Your task to perform on an android device: open chrome and create a bookmark for the current page Image 0: 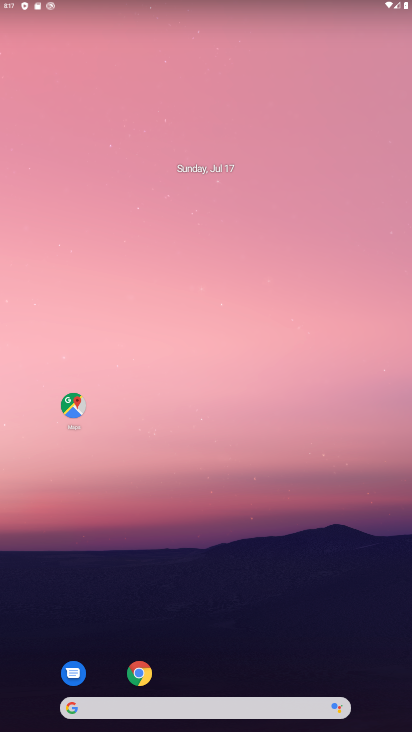
Step 0: click (140, 671)
Your task to perform on an android device: open chrome and create a bookmark for the current page Image 1: 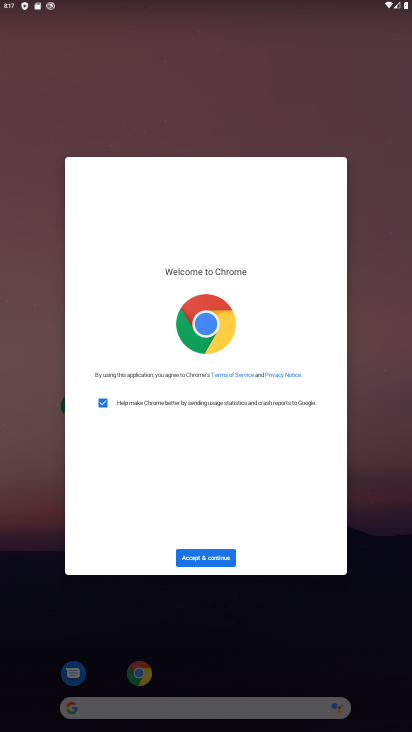
Step 1: click (177, 561)
Your task to perform on an android device: open chrome and create a bookmark for the current page Image 2: 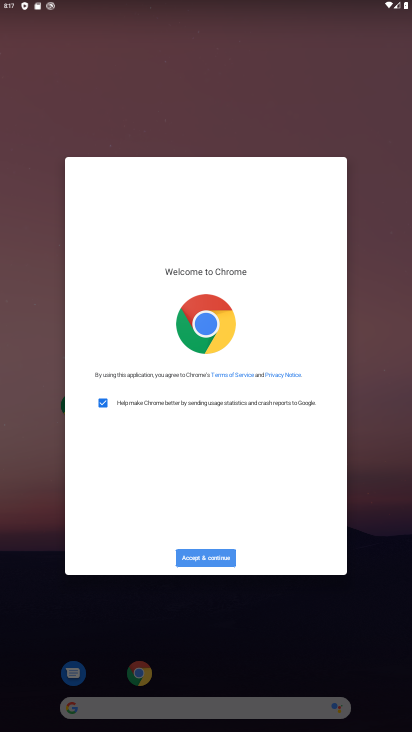
Step 2: click (189, 565)
Your task to perform on an android device: open chrome and create a bookmark for the current page Image 3: 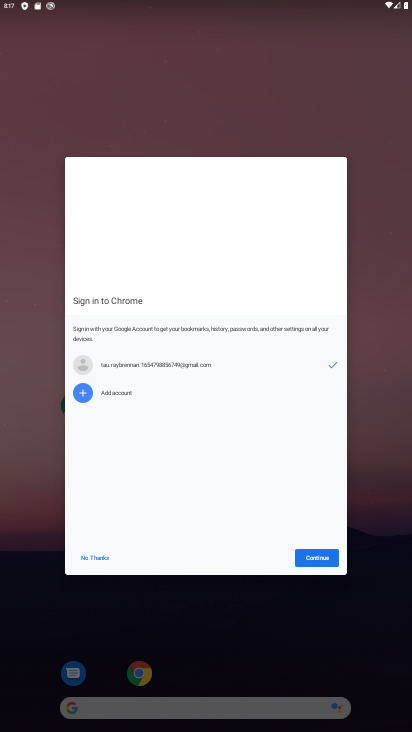
Step 3: click (322, 548)
Your task to perform on an android device: open chrome and create a bookmark for the current page Image 4: 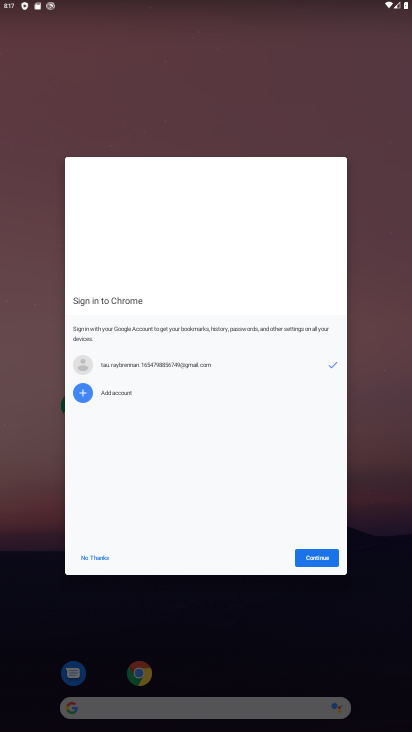
Step 4: click (319, 563)
Your task to perform on an android device: open chrome and create a bookmark for the current page Image 5: 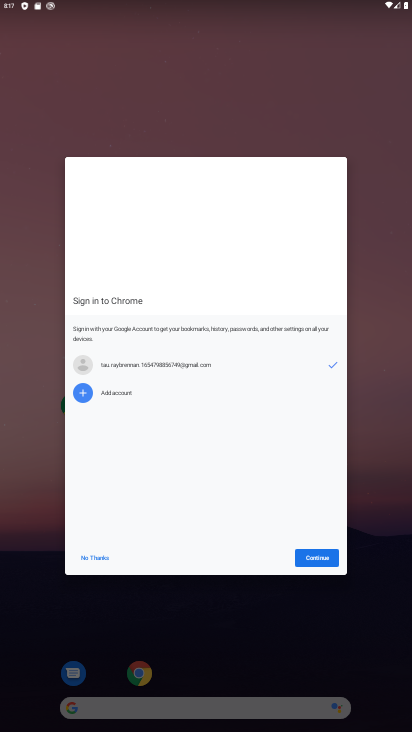
Step 5: click (319, 558)
Your task to perform on an android device: open chrome and create a bookmark for the current page Image 6: 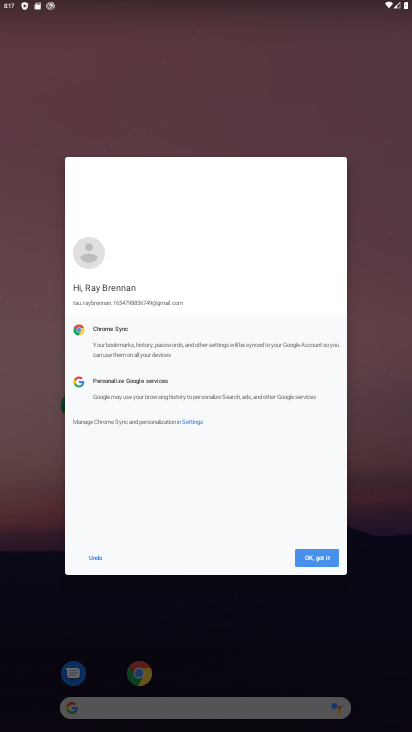
Step 6: click (320, 558)
Your task to perform on an android device: open chrome and create a bookmark for the current page Image 7: 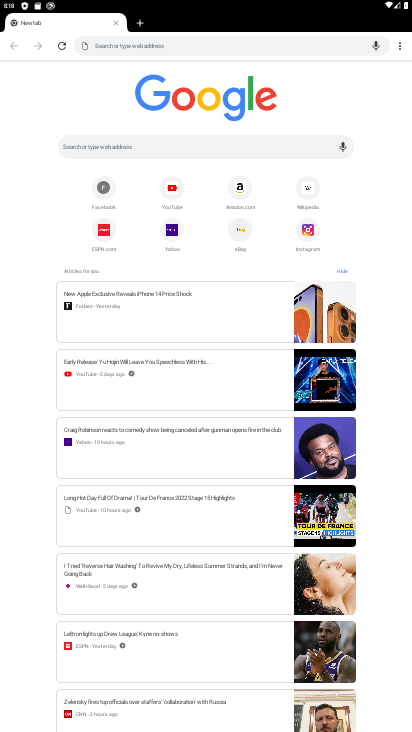
Step 7: drag from (400, 45) to (246, 43)
Your task to perform on an android device: open chrome and create a bookmark for the current page Image 8: 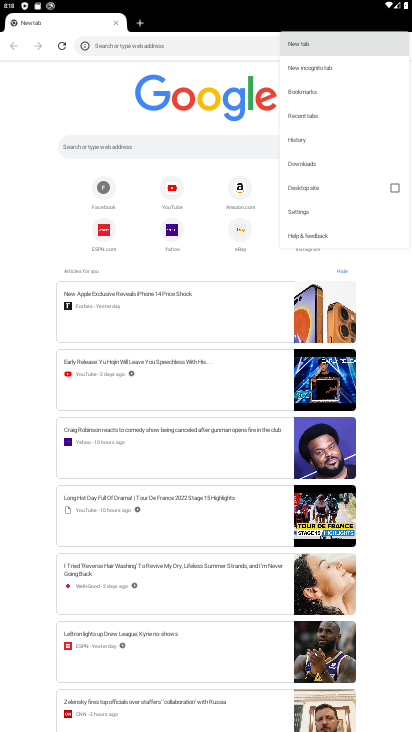
Step 8: click (238, 40)
Your task to perform on an android device: open chrome and create a bookmark for the current page Image 9: 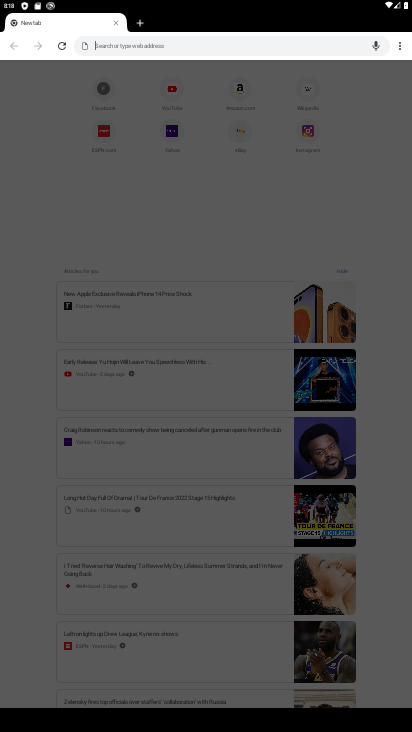
Step 9: click (67, 138)
Your task to perform on an android device: open chrome and create a bookmark for the current page Image 10: 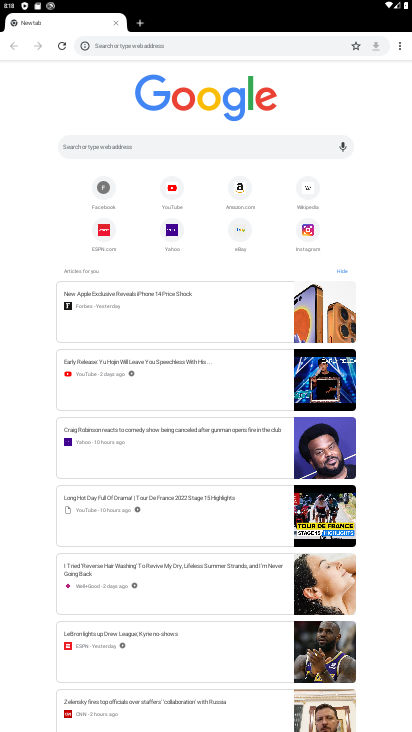
Step 10: click (351, 214)
Your task to perform on an android device: open chrome and create a bookmark for the current page Image 11: 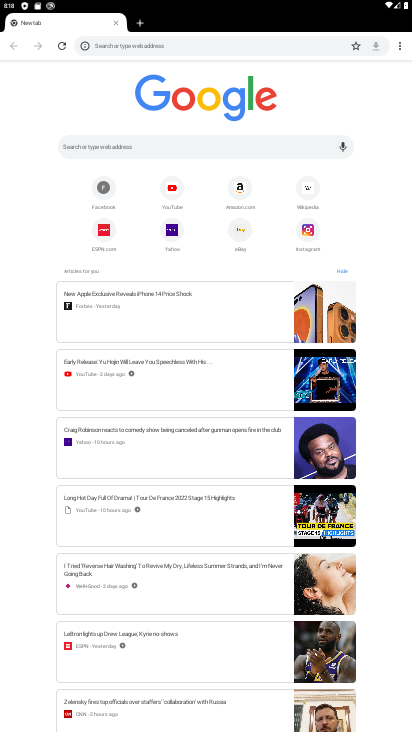
Step 11: click (359, 43)
Your task to perform on an android device: open chrome and create a bookmark for the current page Image 12: 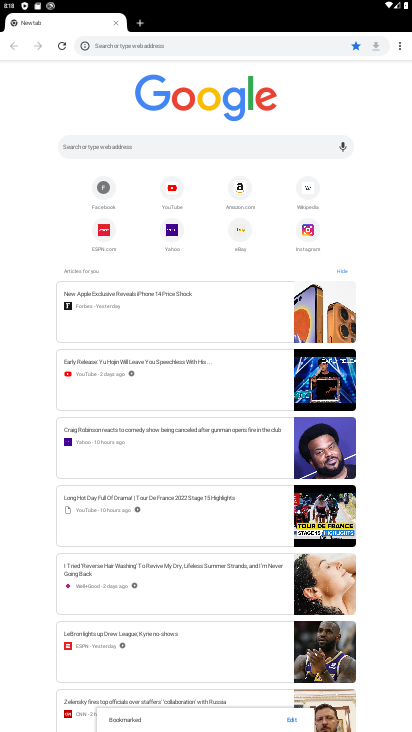
Step 12: task complete